Your task to perform on an android device: Set the phone to "Do not disturb". Image 0: 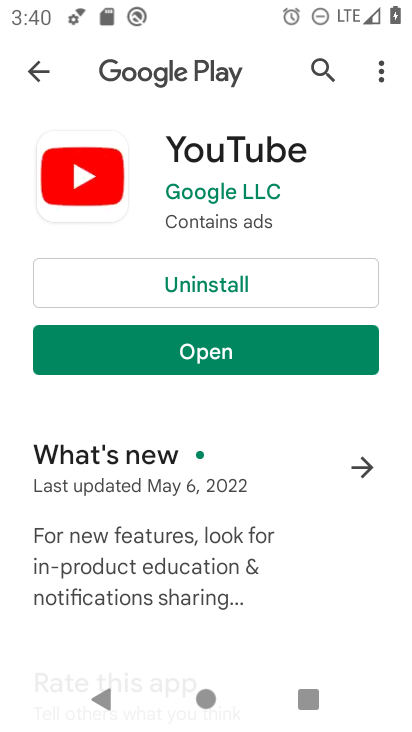
Step 0: press home button
Your task to perform on an android device: Set the phone to "Do not disturb". Image 1: 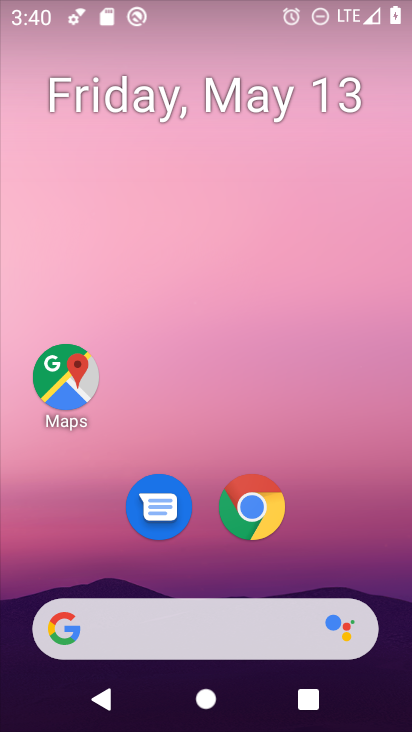
Step 1: drag from (281, 489) to (226, 174)
Your task to perform on an android device: Set the phone to "Do not disturb". Image 2: 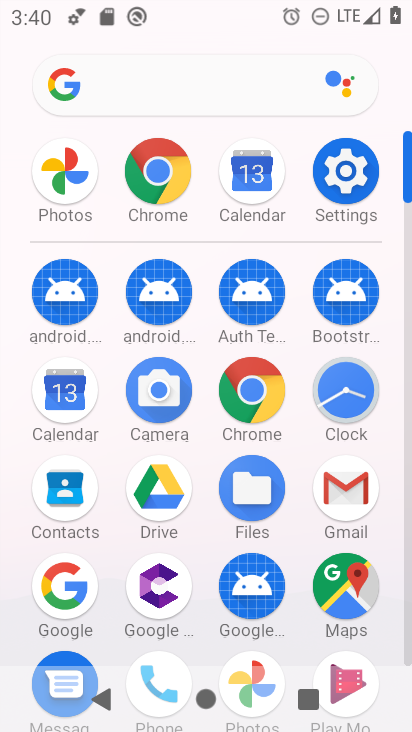
Step 2: click (348, 174)
Your task to perform on an android device: Set the phone to "Do not disturb". Image 3: 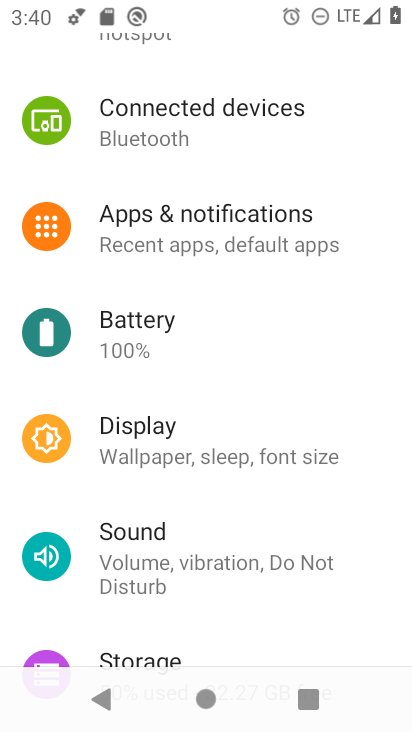
Step 3: drag from (281, 414) to (257, 183)
Your task to perform on an android device: Set the phone to "Do not disturb". Image 4: 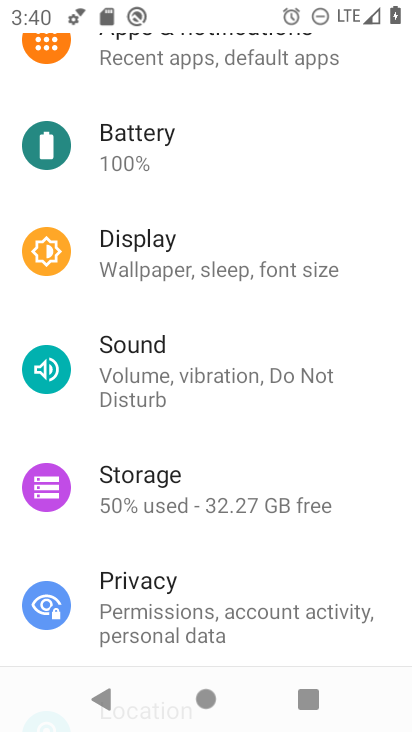
Step 4: drag from (219, 443) to (238, 156)
Your task to perform on an android device: Set the phone to "Do not disturb". Image 5: 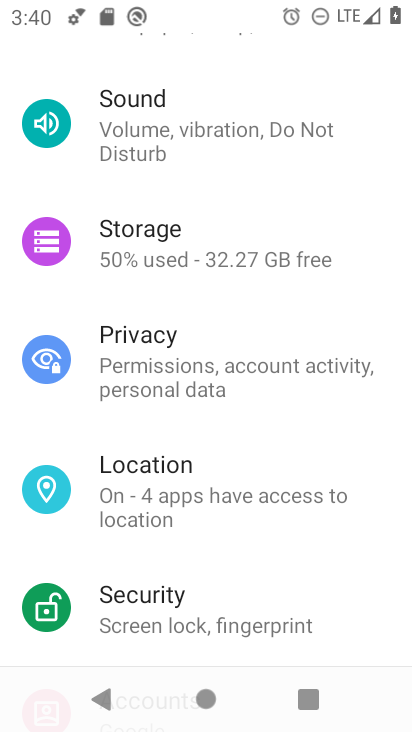
Step 5: click (240, 139)
Your task to perform on an android device: Set the phone to "Do not disturb". Image 6: 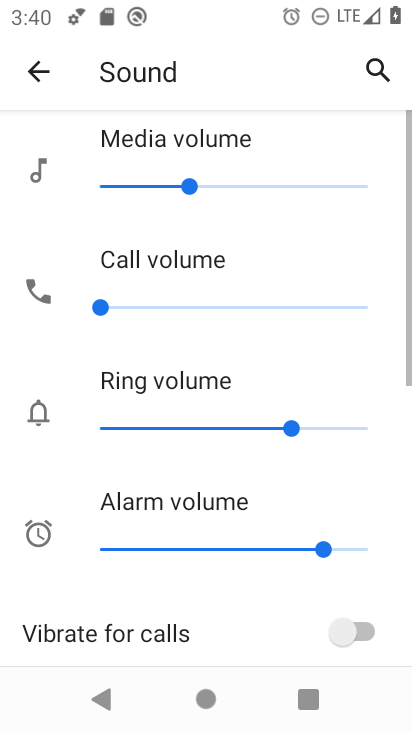
Step 6: drag from (272, 390) to (257, 128)
Your task to perform on an android device: Set the phone to "Do not disturb". Image 7: 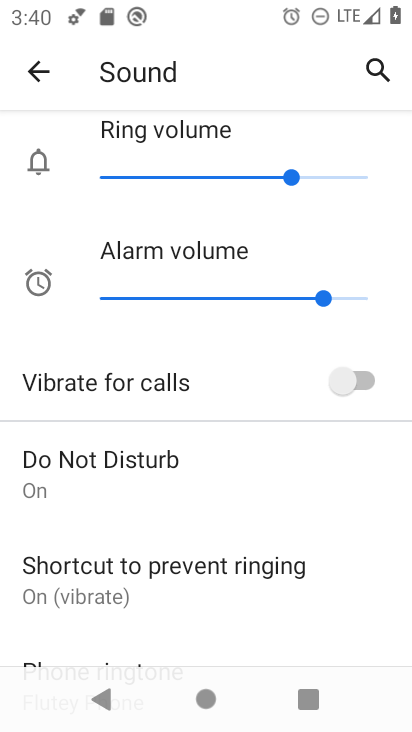
Step 7: click (184, 454)
Your task to perform on an android device: Set the phone to "Do not disturb". Image 8: 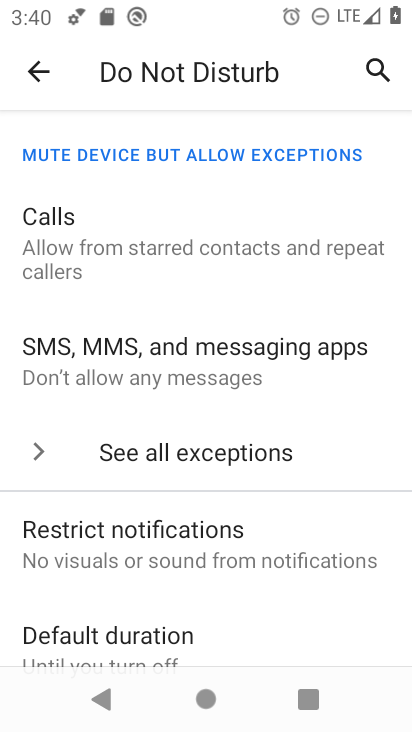
Step 8: task complete